Your task to perform on an android device: toggle airplane mode Image 0: 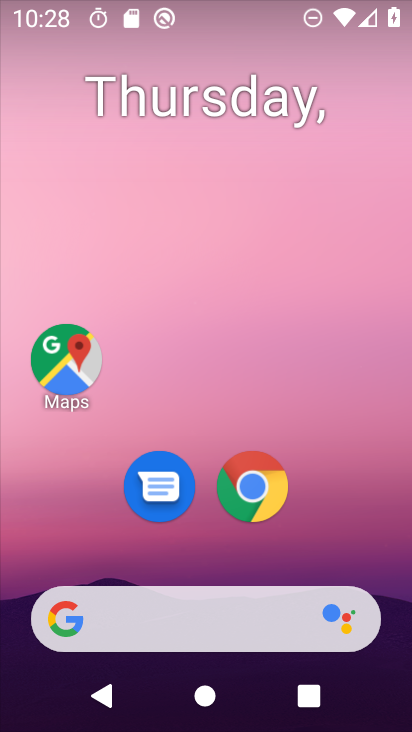
Step 0: drag from (208, 555) to (248, 25)
Your task to perform on an android device: toggle airplane mode Image 1: 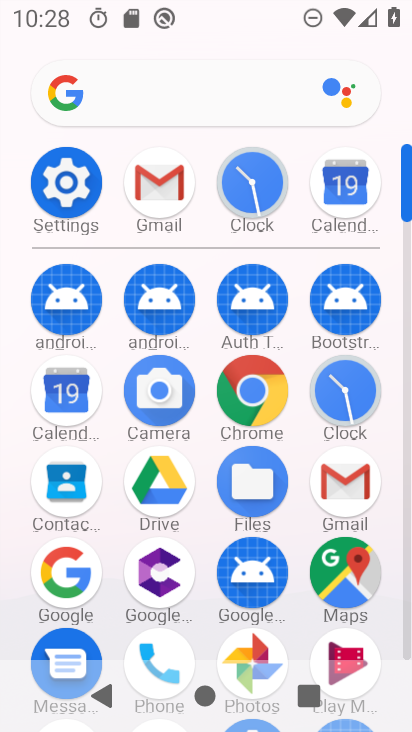
Step 1: drag from (298, 6) to (255, 424)
Your task to perform on an android device: toggle airplane mode Image 2: 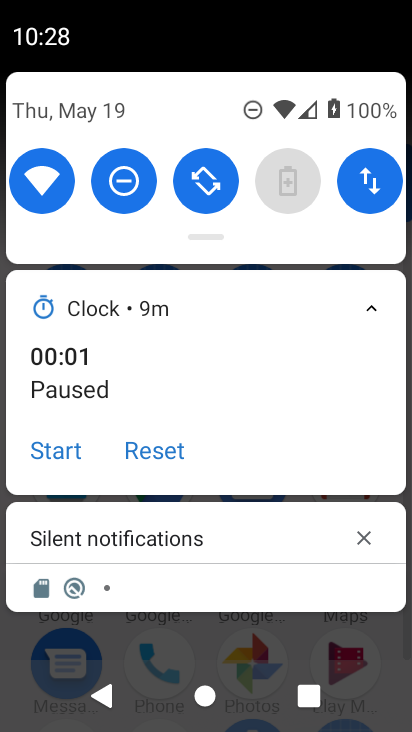
Step 2: drag from (200, 223) to (195, 664)
Your task to perform on an android device: toggle airplane mode Image 3: 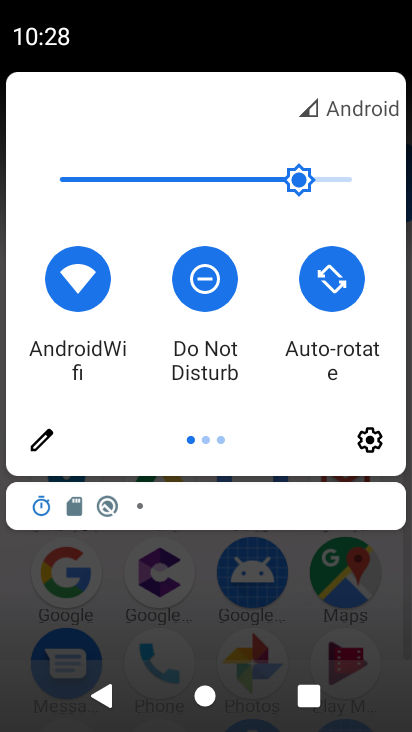
Step 3: drag from (367, 291) to (59, 273)
Your task to perform on an android device: toggle airplane mode Image 4: 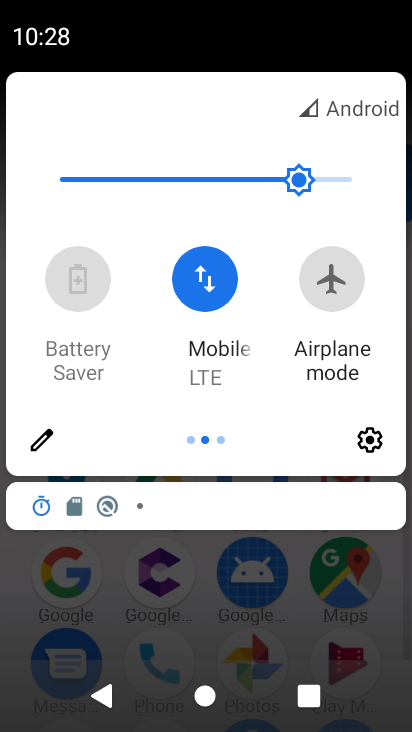
Step 4: click (341, 286)
Your task to perform on an android device: toggle airplane mode Image 5: 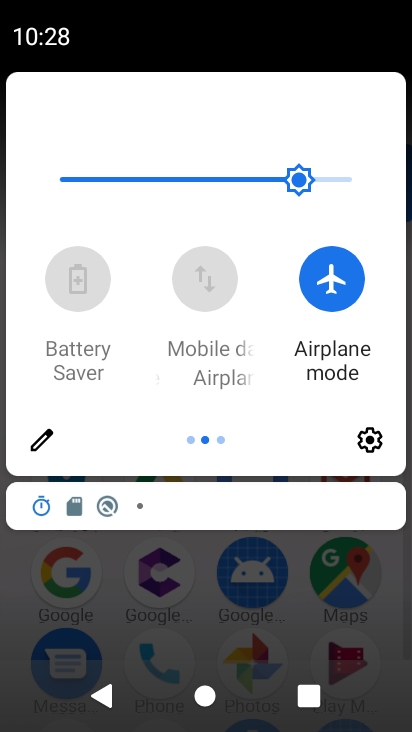
Step 5: task complete